Your task to perform on an android device: turn on javascript in the chrome app Image 0: 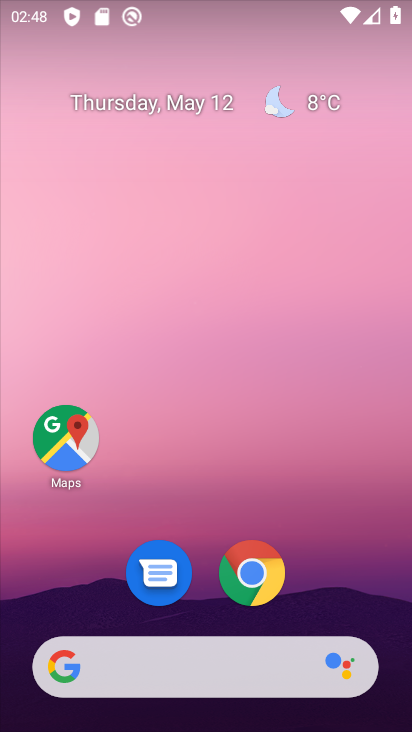
Step 0: press home button
Your task to perform on an android device: turn on javascript in the chrome app Image 1: 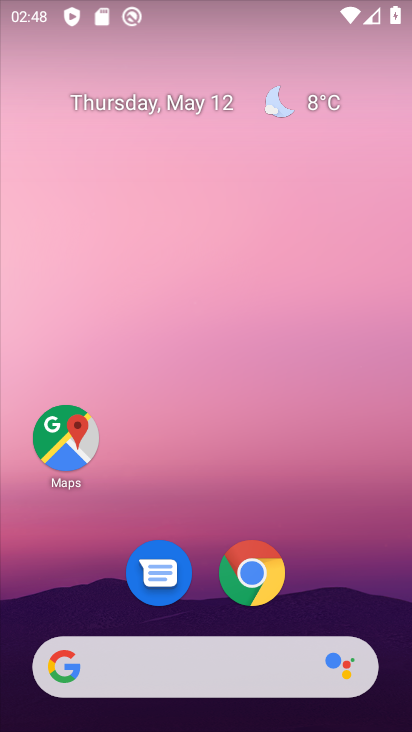
Step 1: click (244, 589)
Your task to perform on an android device: turn on javascript in the chrome app Image 2: 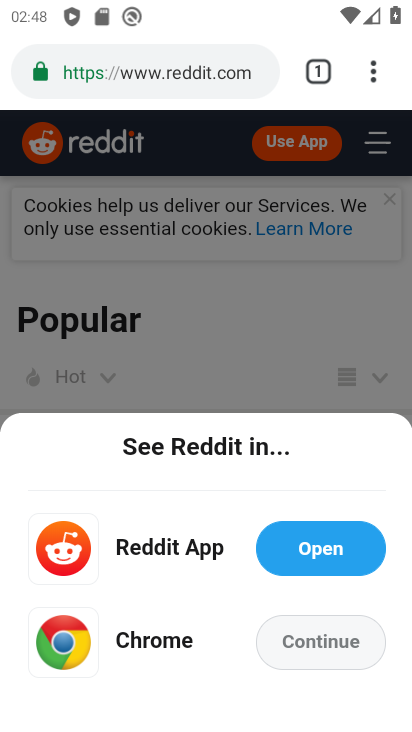
Step 2: drag from (378, 89) to (112, 567)
Your task to perform on an android device: turn on javascript in the chrome app Image 3: 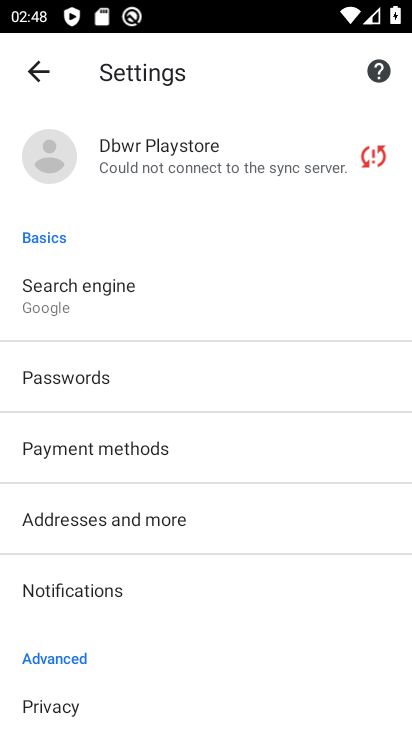
Step 3: drag from (274, 615) to (313, 122)
Your task to perform on an android device: turn on javascript in the chrome app Image 4: 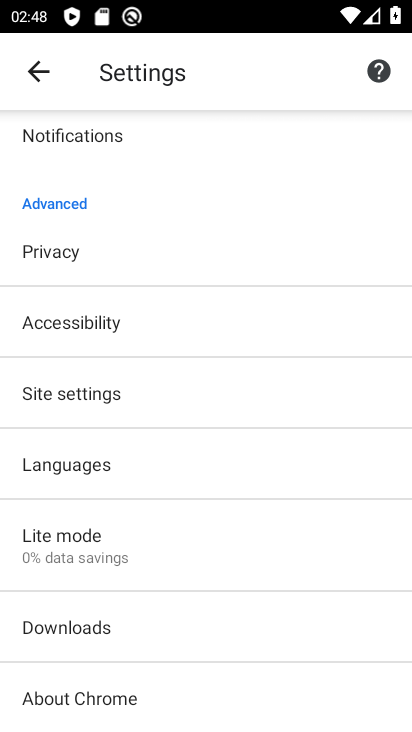
Step 4: click (171, 411)
Your task to perform on an android device: turn on javascript in the chrome app Image 5: 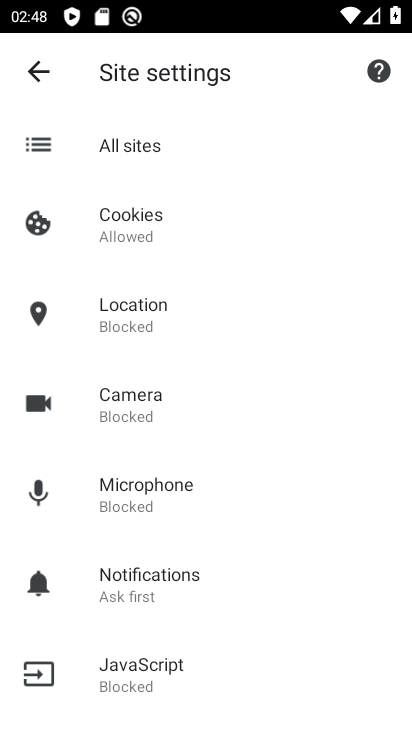
Step 5: click (198, 681)
Your task to perform on an android device: turn on javascript in the chrome app Image 6: 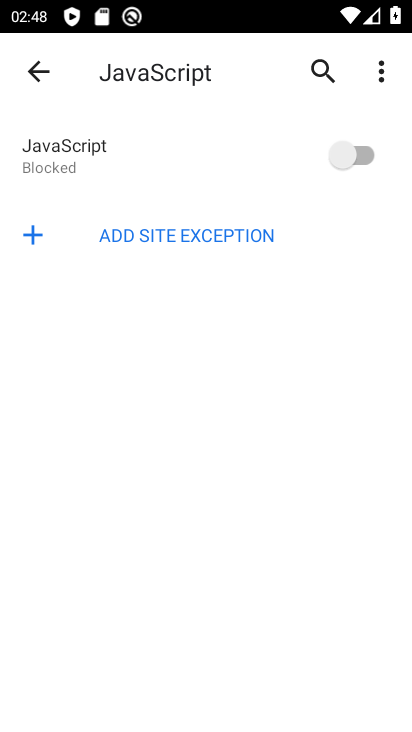
Step 6: click (339, 169)
Your task to perform on an android device: turn on javascript in the chrome app Image 7: 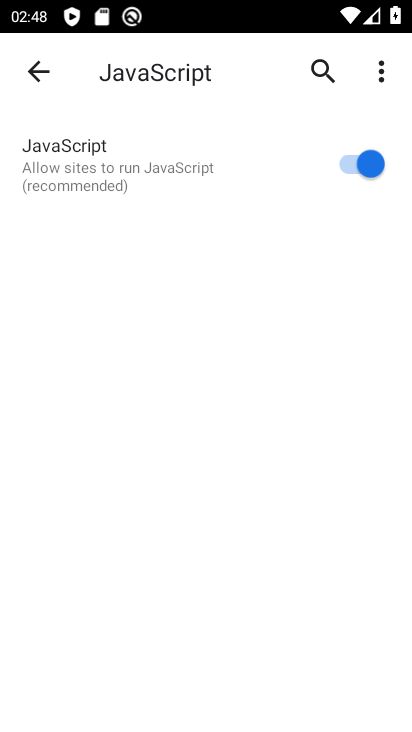
Step 7: task complete